Your task to perform on an android device: check the backup settings in the google photos Image 0: 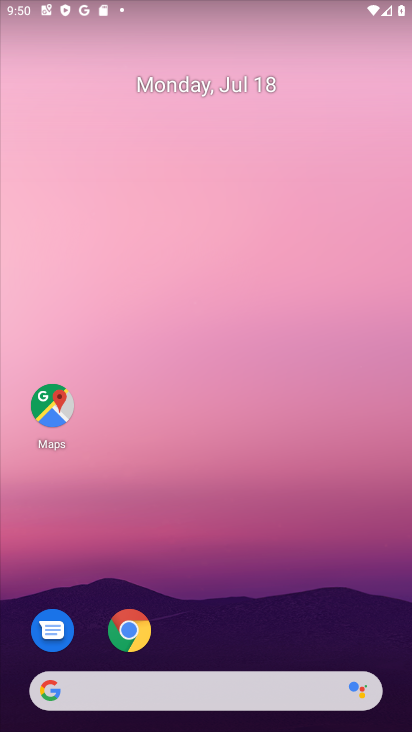
Step 0: drag from (313, 645) to (195, 43)
Your task to perform on an android device: check the backup settings in the google photos Image 1: 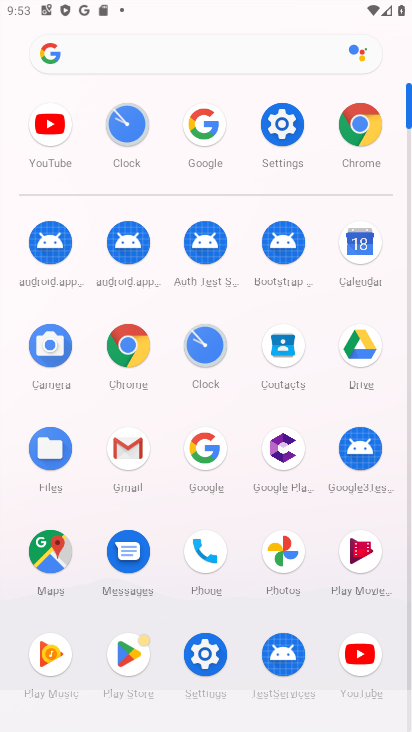
Step 1: click (281, 565)
Your task to perform on an android device: check the backup settings in the google photos Image 2: 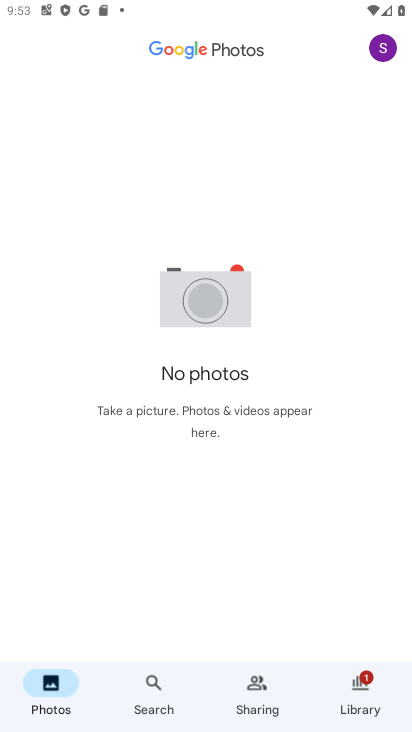
Step 2: click (371, 43)
Your task to perform on an android device: check the backup settings in the google photos Image 3: 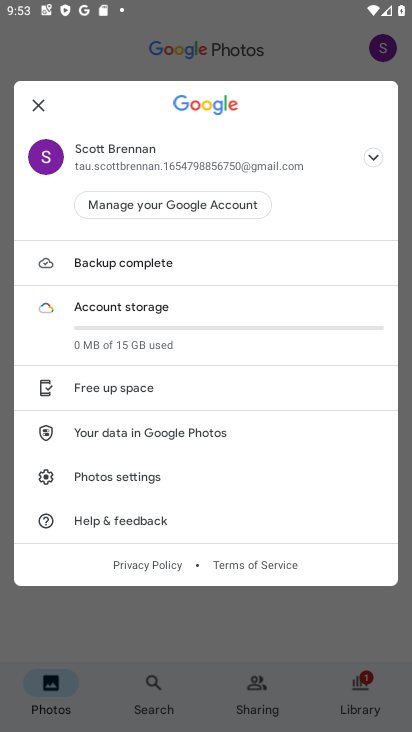
Step 3: click (79, 268)
Your task to perform on an android device: check the backup settings in the google photos Image 4: 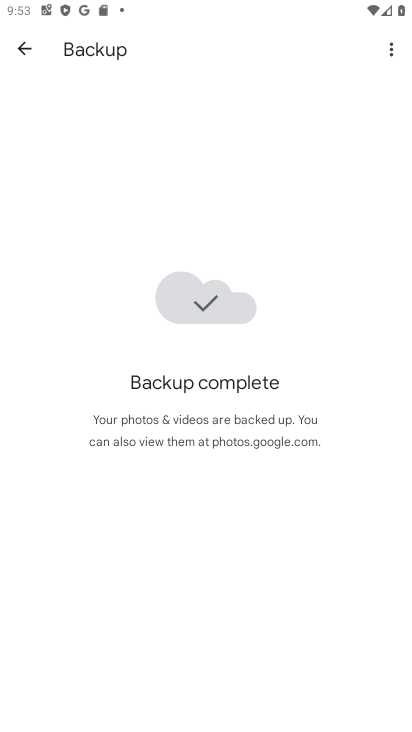
Step 4: task complete